Your task to perform on an android device: Is it going to rain today? Image 0: 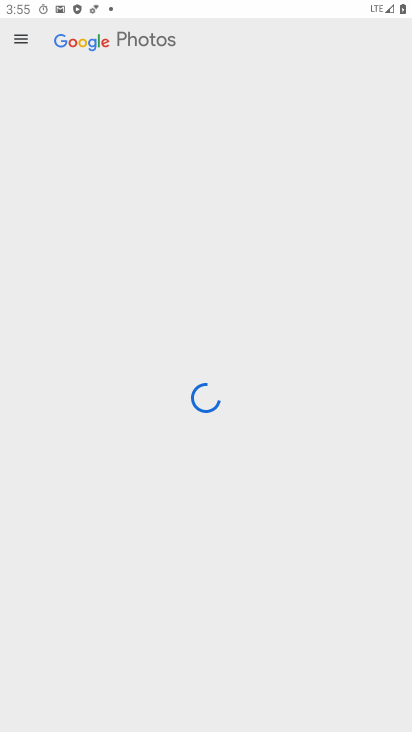
Step 0: press home button
Your task to perform on an android device: Is it going to rain today? Image 1: 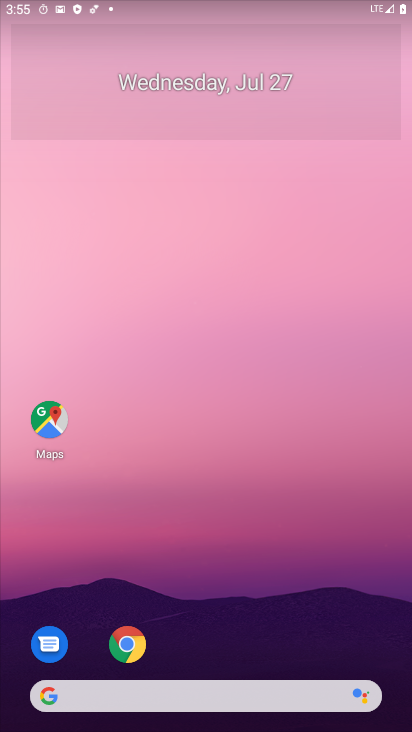
Step 1: drag from (205, 728) to (205, 38)
Your task to perform on an android device: Is it going to rain today? Image 2: 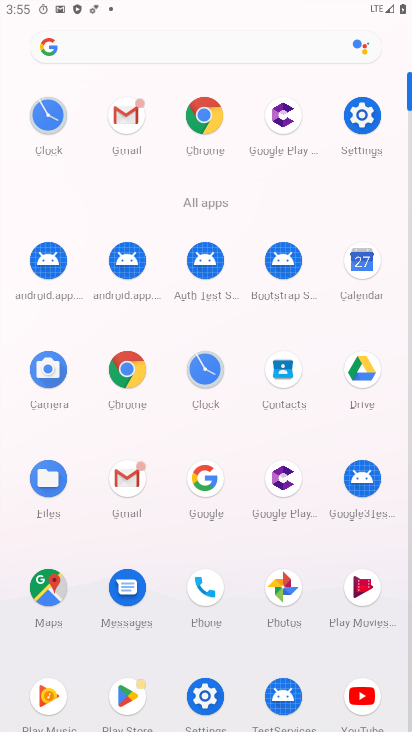
Step 2: click (201, 478)
Your task to perform on an android device: Is it going to rain today? Image 3: 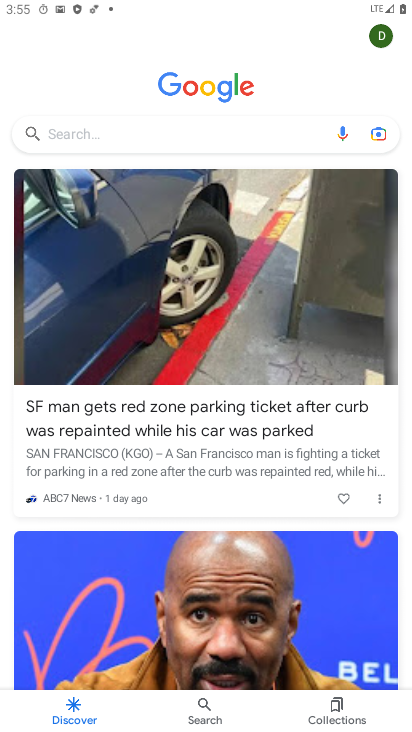
Step 3: click (190, 131)
Your task to perform on an android device: Is it going to rain today? Image 4: 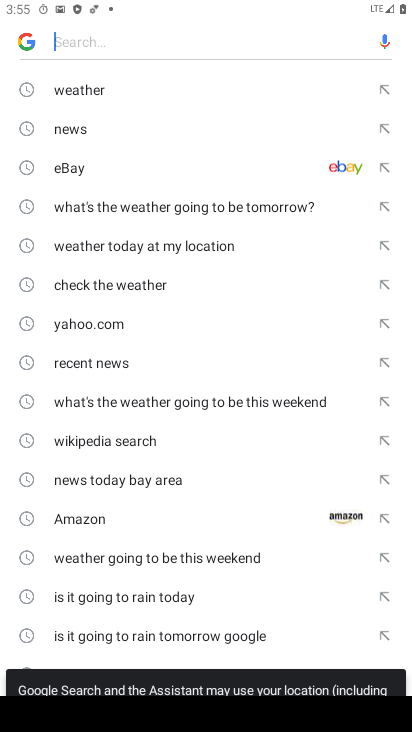
Step 4: click (82, 91)
Your task to perform on an android device: Is it going to rain today? Image 5: 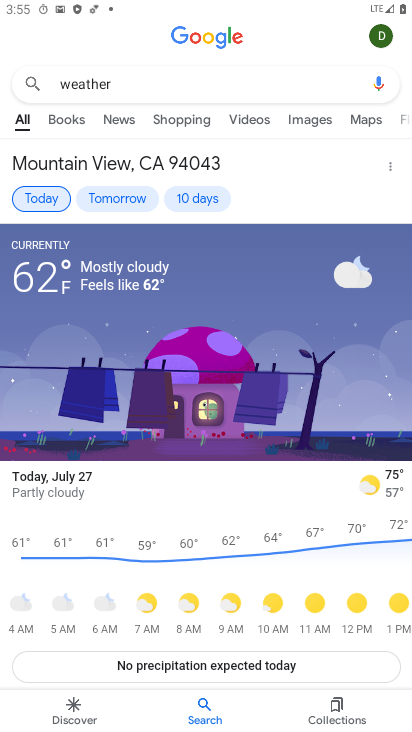
Step 5: task complete